Your task to perform on an android device: Toggle the flashlight Image 0: 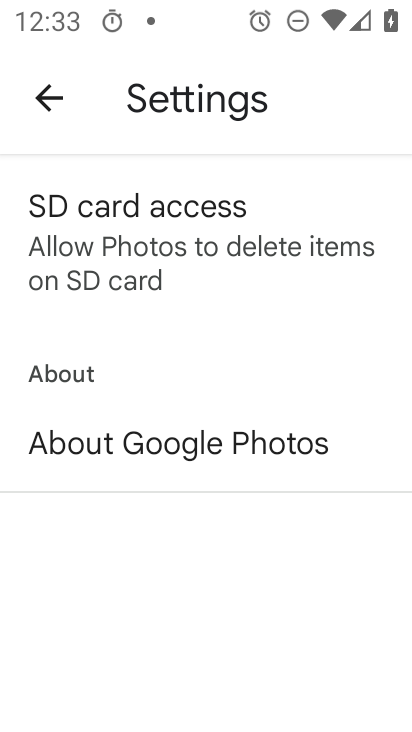
Step 0: drag from (236, 3) to (227, 441)
Your task to perform on an android device: Toggle the flashlight Image 1: 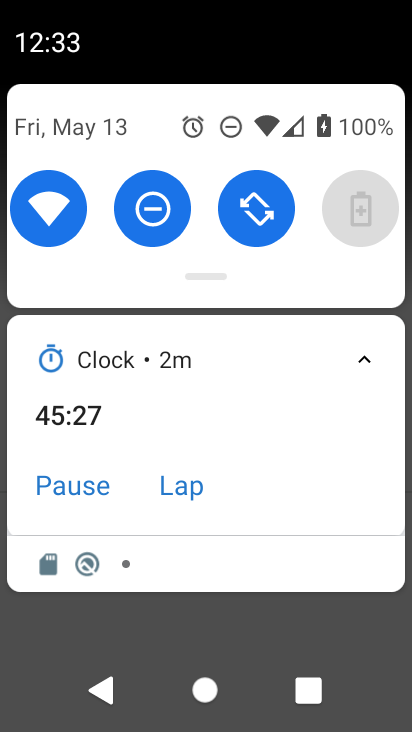
Step 1: task complete